Your task to perform on an android device: What's the weather going to be this weekend? Image 0: 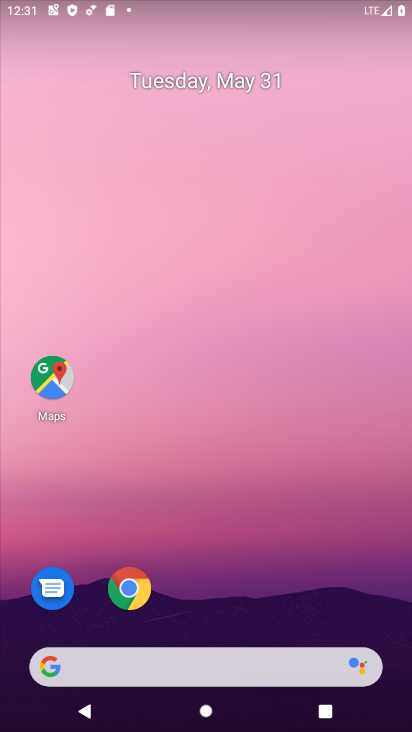
Step 0: press home button
Your task to perform on an android device: What's the weather going to be this weekend? Image 1: 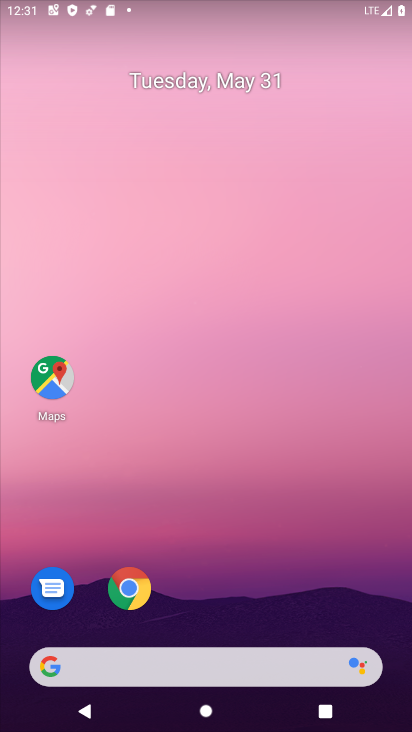
Step 1: drag from (217, 631) to (242, 161)
Your task to perform on an android device: What's the weather going to be this weekend? Image 2: 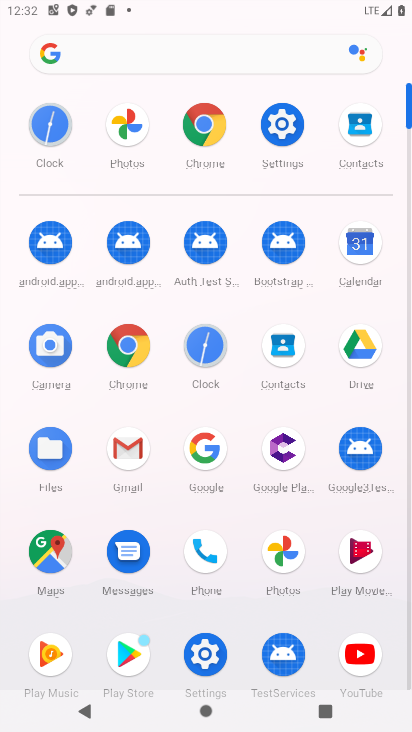
Step 2: press home button
Your task to perform on an android device: What's the weather going to be this weekend? Image 3: 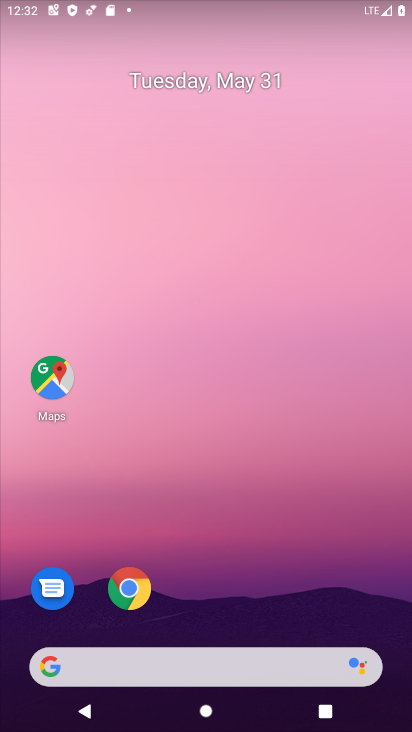
Step 3: drag from (18, 233) to (402, 188)
Your task to perform on an android device: What's the weather going to be this weekend? Image 4: 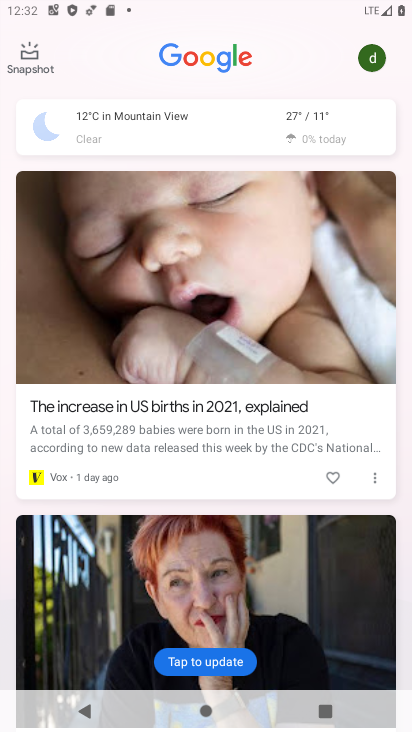
Step 4: click (310, 123)
Your task to perform on an android device: What's the weather going to be this weekend? Image 5: 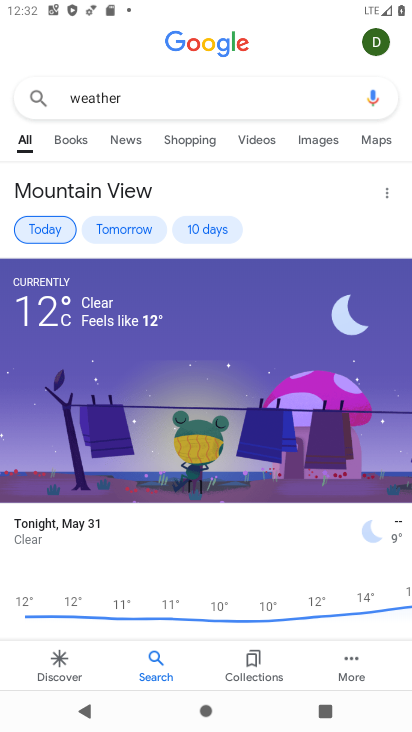
Step 5: click (204, 224)
Your task to perform on an android device: What's the weather going to be this weekend? Image 6: 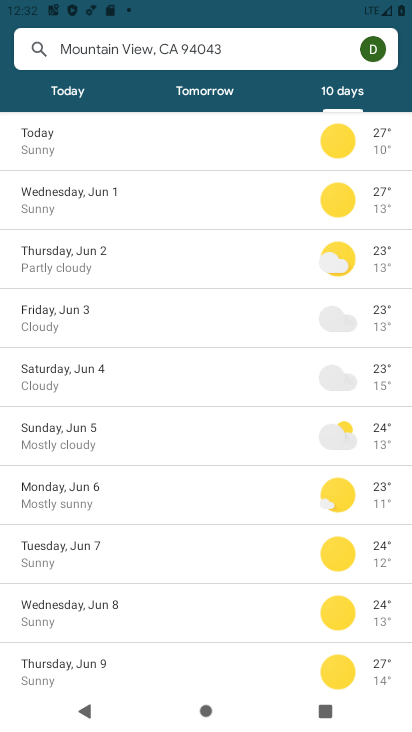
Step 6: task complete